Your task to perform on an android device: make emails show in primary in the gmail app Image 0: 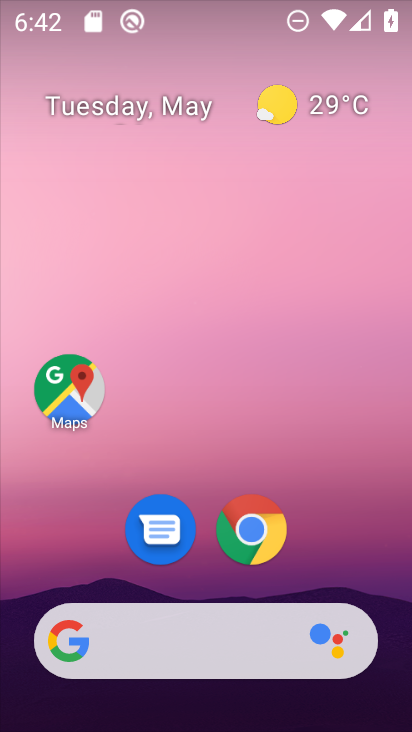
Step 0: drag from (392, 616) to (349, 121)
Your task to perform on an android device: make emails show in primary in the gmail app Image 1: 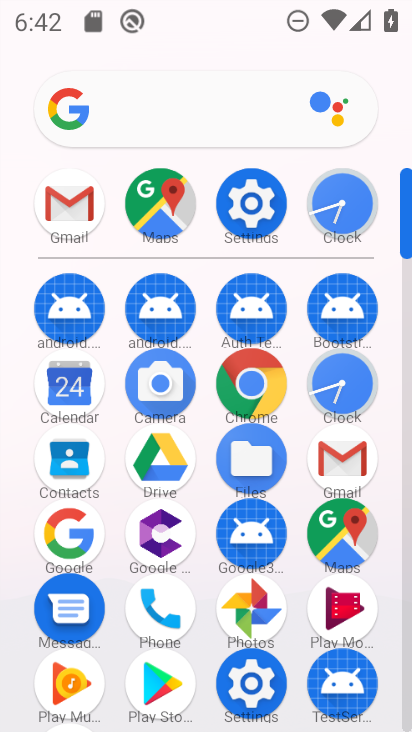
Step 1: click (350, 471)
Your task to perform on an android device: make emails show in primary in the gmail app Image 2: 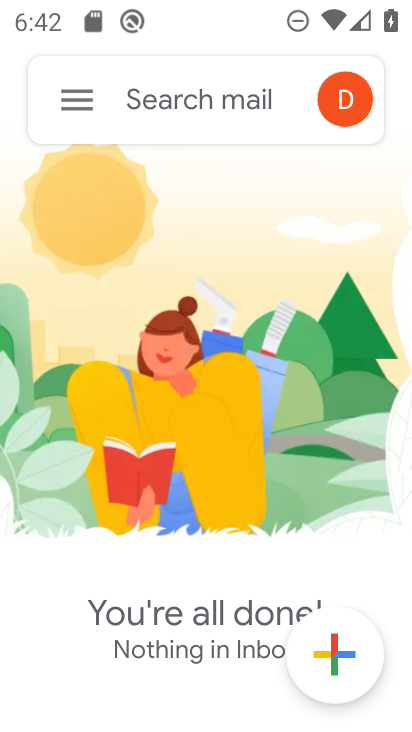
Step 2: task complete